Your task to perform on an android device: add a contact in the contacts app Image 0: 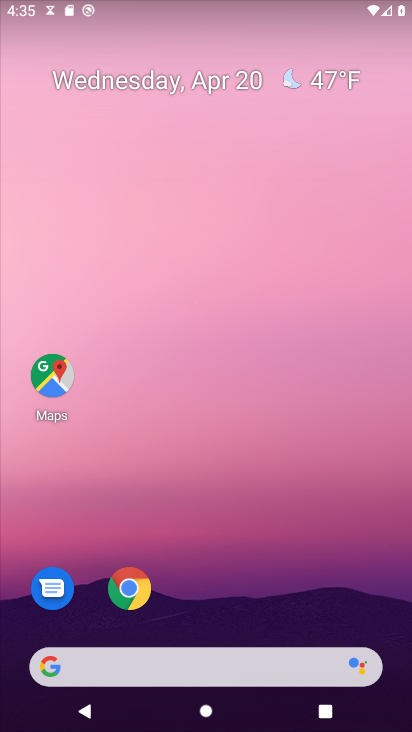
Step 0: drag from (261, 526) to (301, 5)
Your task to perform on an android device: add a contact in the contacts app Image 1: 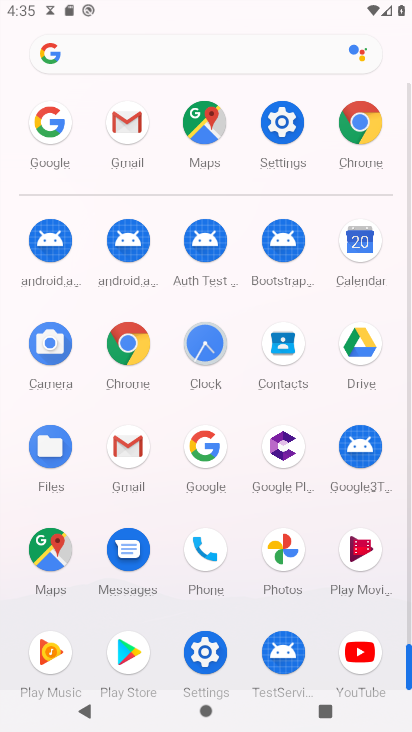
Step 1: click (285, 346)
Your task to perform on an android device: add a contact in the contacts app Image 2: 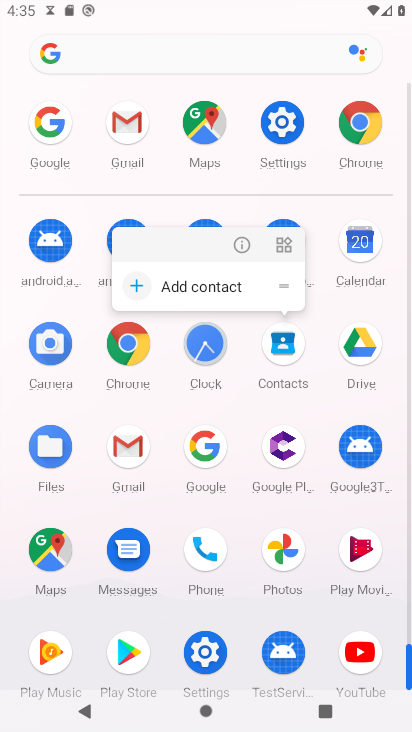
Step 2: click (285, 346)
Your task to perform on an android device: add a contact in the contacts app Image 3: 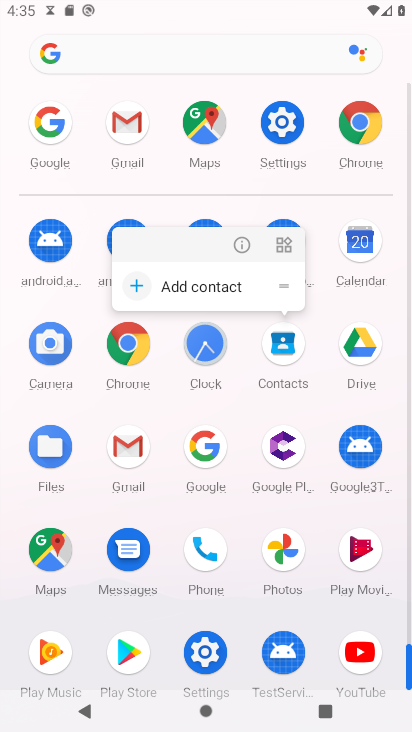
Step 3: click (285, 346)
Your task to perform on an android device: add a contact in the contacts app Image 4: 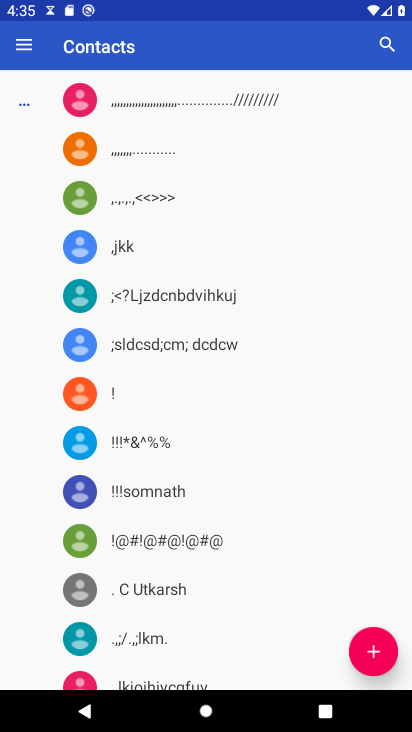
Step 4: click (360, 639)
Your task to perform on an android device: add a contact in the contacts app Image 5: 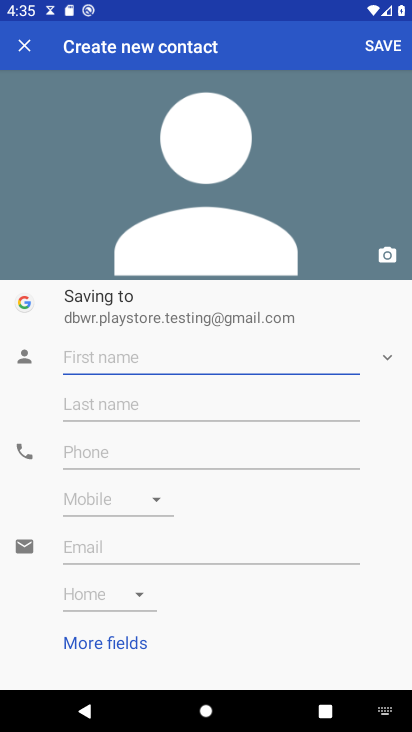
Step 5: type "dtgdhfgcf"
Your task to perform on an android device: add a contact in the contacts app Image 6: 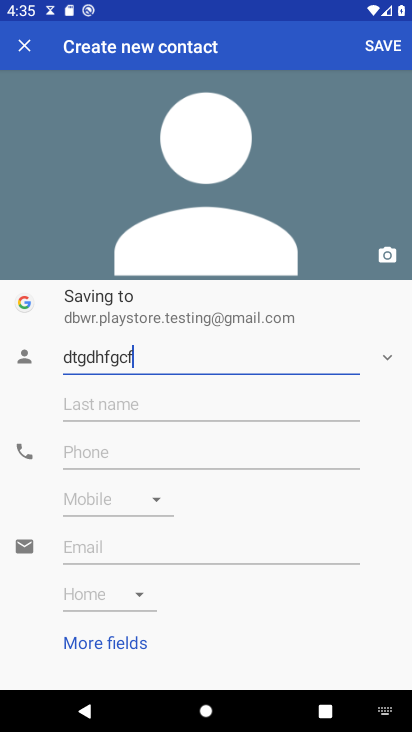
Step 6: click (93, 449)
Your task to perform on an android device: add a contact in the contacts app Image 7: 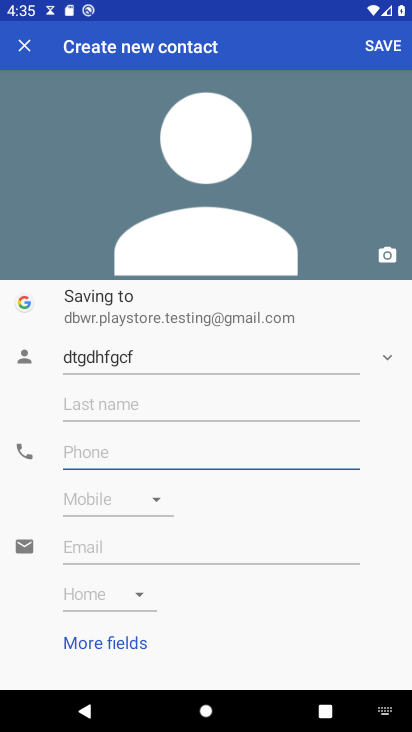
Step 7: type "45675675678"
Your task to perform on an android device: add a contact in the contacts app Image 8: 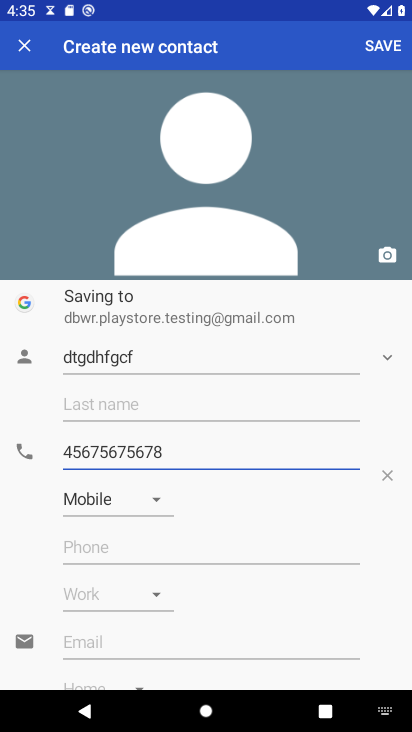
Step 8: click (387, 51)
Your task to perform on an android device: add a contact in the contacts app Image 9: 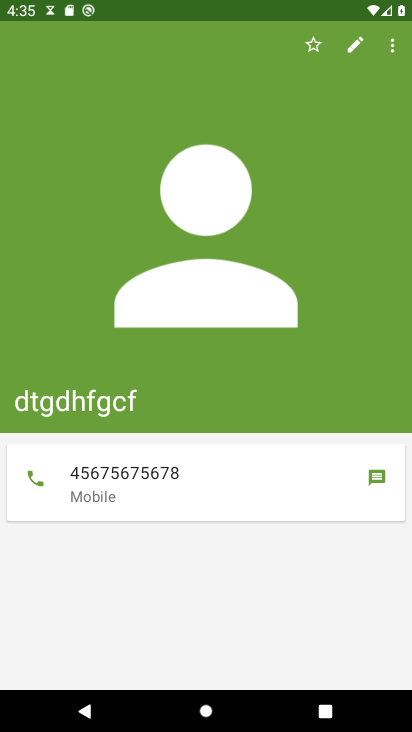
Step 9: task complete